Your task to perform on an android device: Go to Reddit.com Image 0: 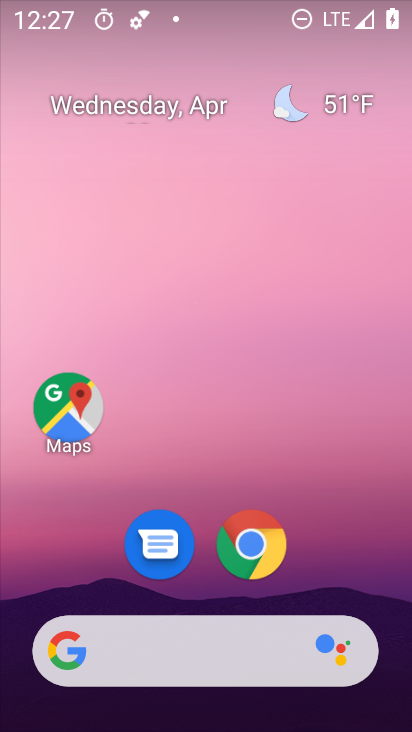
Step 0: drag from (345, 554) to (337, 98)
Your task to perform on an android device: Go to Reddit.com Image 1: 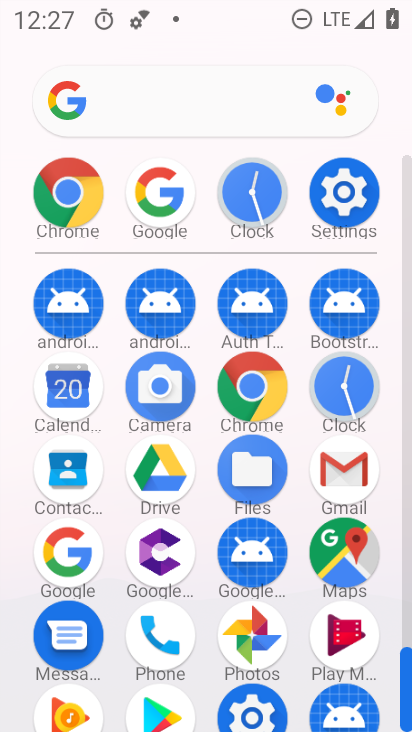
Step 1: click (242, 394)
Your task to perform on an android device: Go to Reddit.com Image 2: 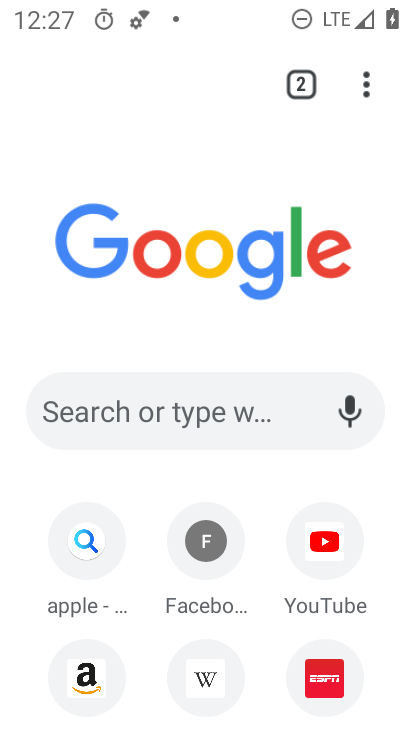
Step 2: drag from (388, 580) to (394, 415)
Your task to perform on an android device: Go to Reddit.com Image 3: 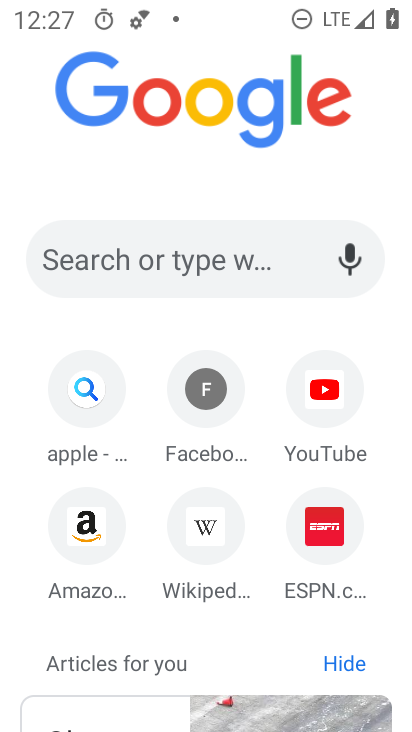
Step 3: click (160, 262)
Your task to perform on an android device: Go to Reddit.com Image 4: 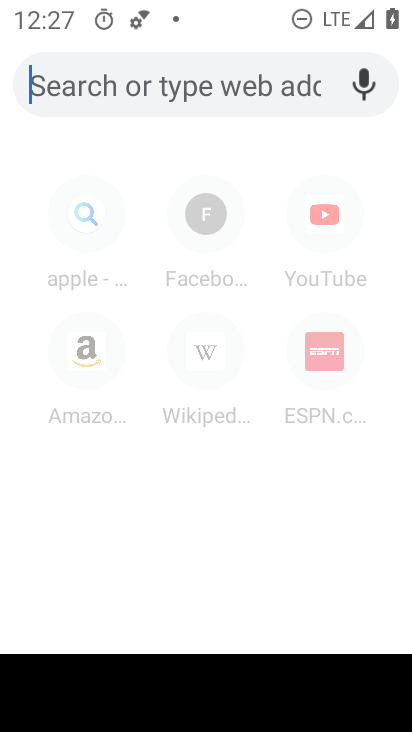
Step 4: type "reddit.com"
Your task to perform on an android device: Go to Reddit.com Image 5: 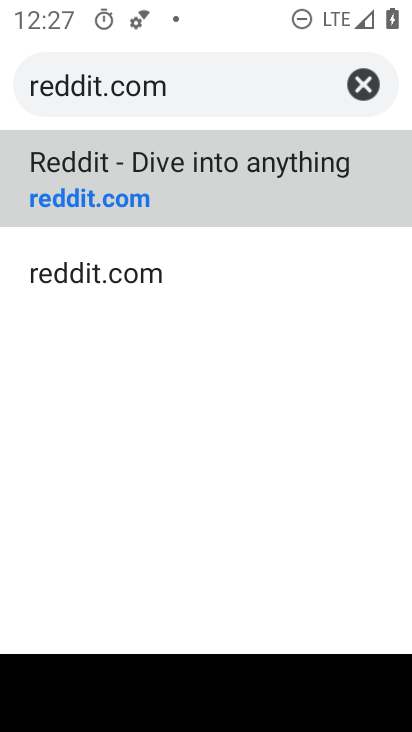
Step 5: click (132, 274)
Your task to perform on an android device: Go to Reddit.com Image 6: 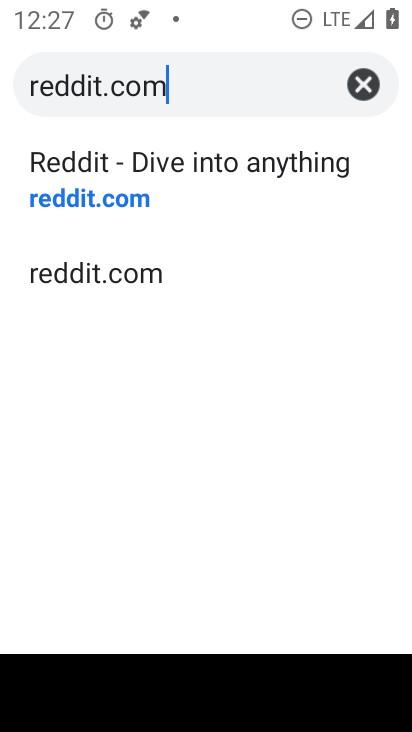
Step 6: click (103, 281)
Your task to perform on an android device: Go to Reddit.com Image 7: 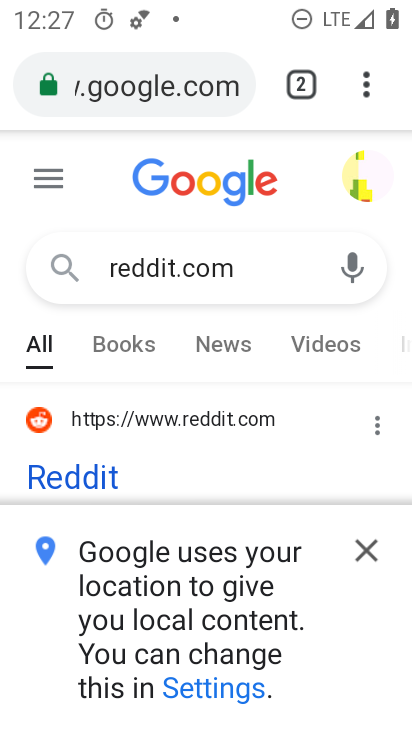
Step 7: task complete